Your task to perform on an android device: Open my contact list Image 0: 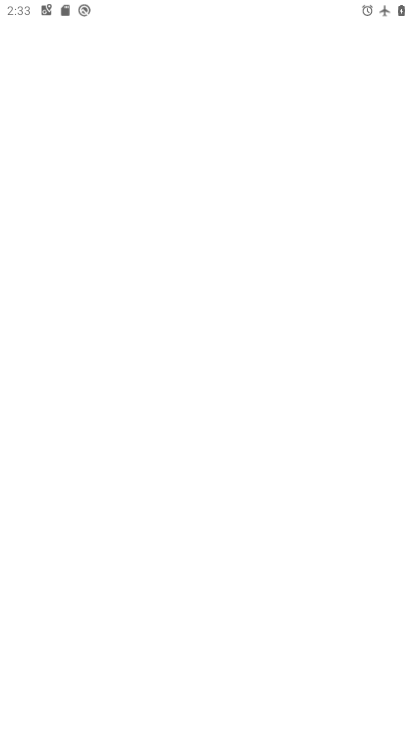
Step 0: drag from (225, 547) to (292, 122)
Your task to perform on an android device: Open my contact list Image 1: 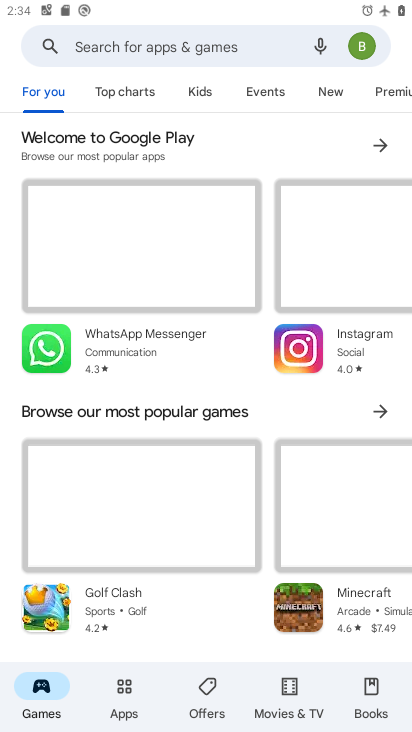
Step 1: press home button
Your task to perform on an android device: Open my contact list Image 2: 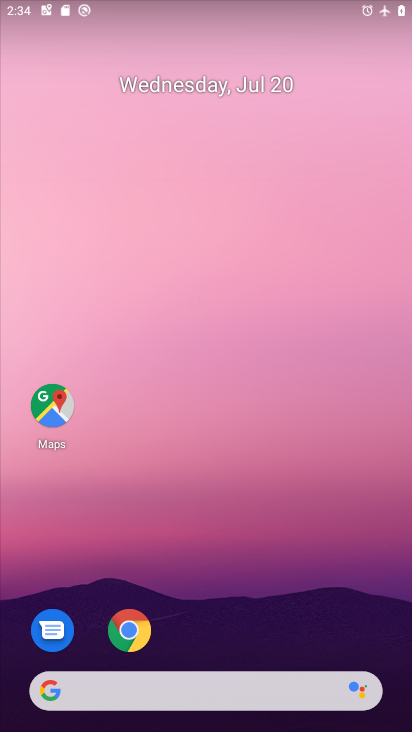
Step 2: drag from (192, 635) to (189, 280)
Your task to perform on an android device: Open my contact list Image 3: 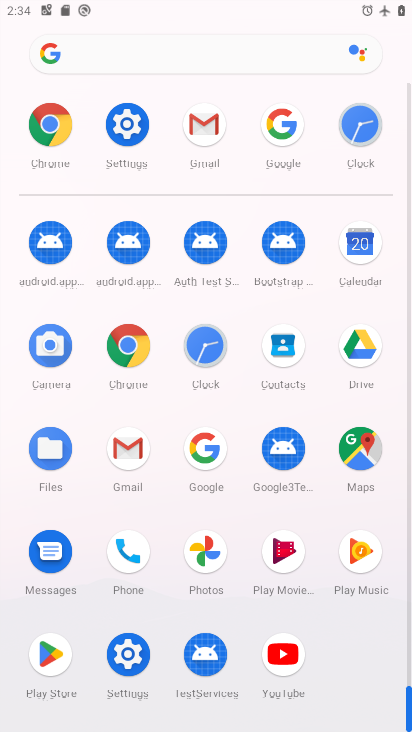
Step 3: click (277, 368)
Your task to perform on an android device: Open my contact list Image 4: 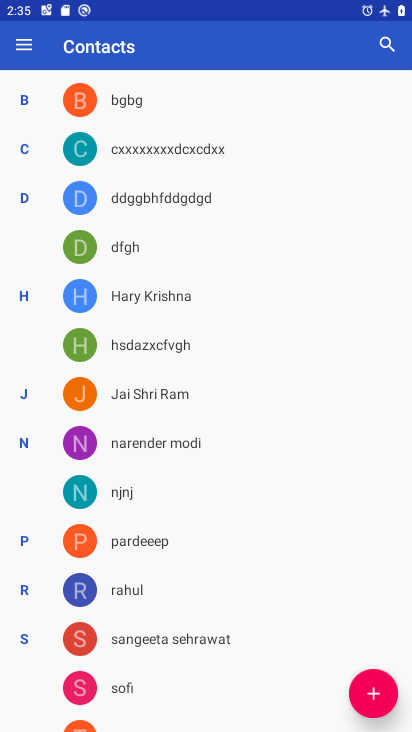
Step 4: task complete